Your task to perform on an android device: Open Google Maps Image 0: 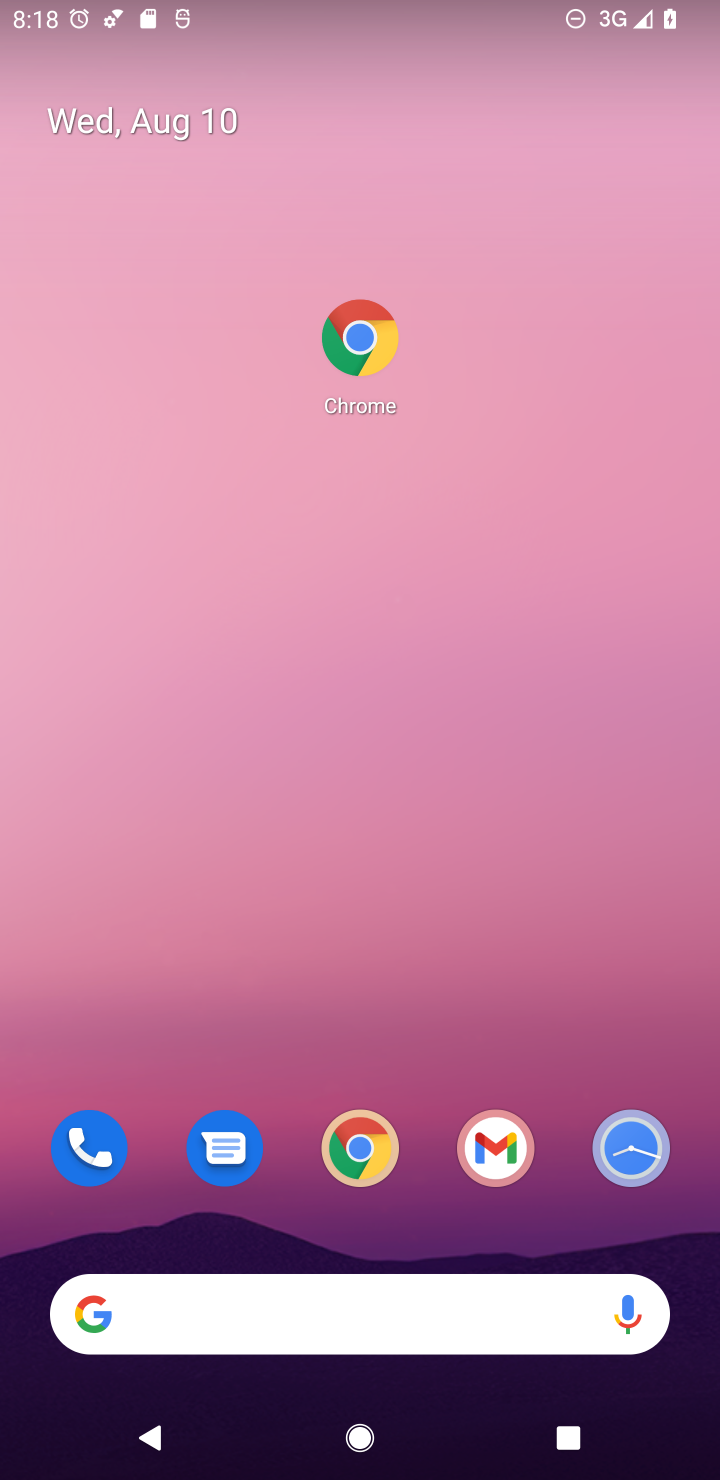
Step 0: drag from (336, 1213) to (273, 138)
Your task to perform on an android device: Open Google Maps Image 1: 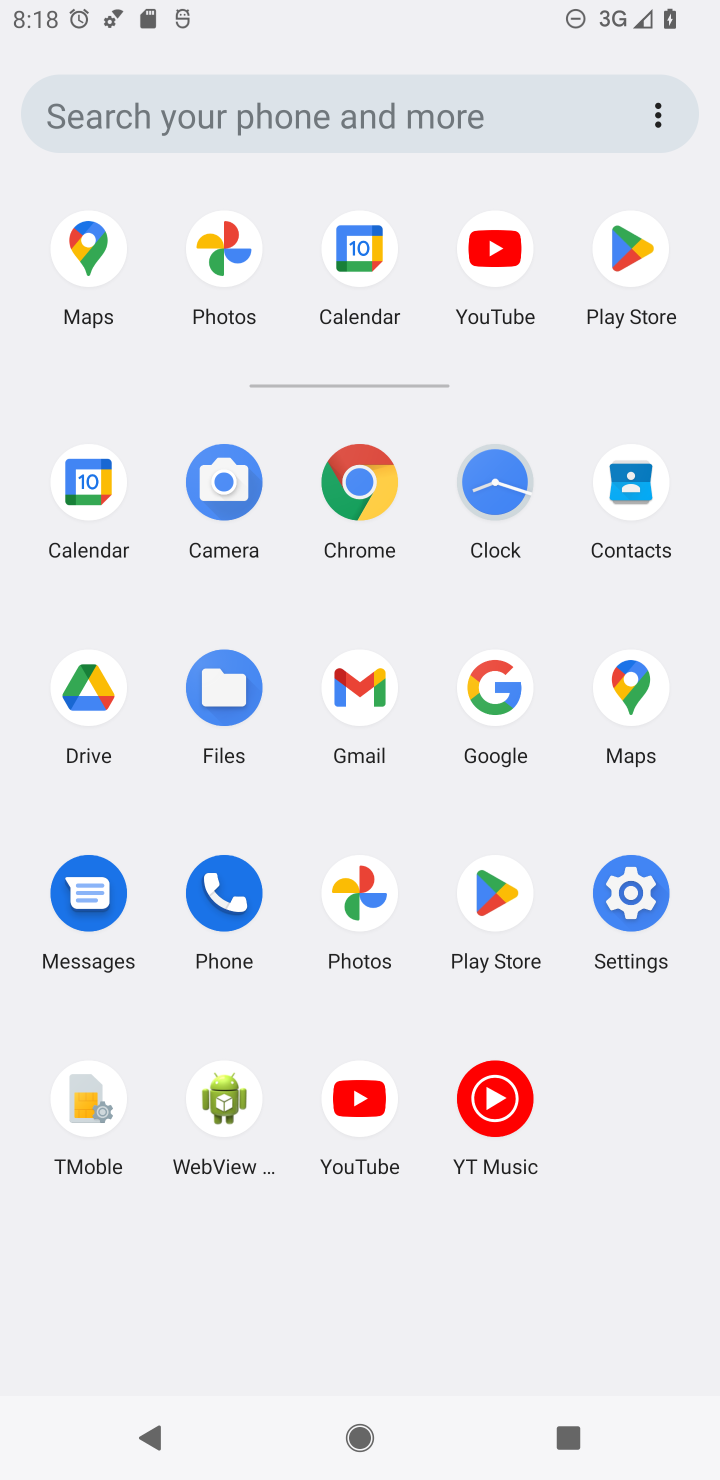
Step 1: click (77, 223)
Your task to perform on an android device: Open Google Maps Image 2: 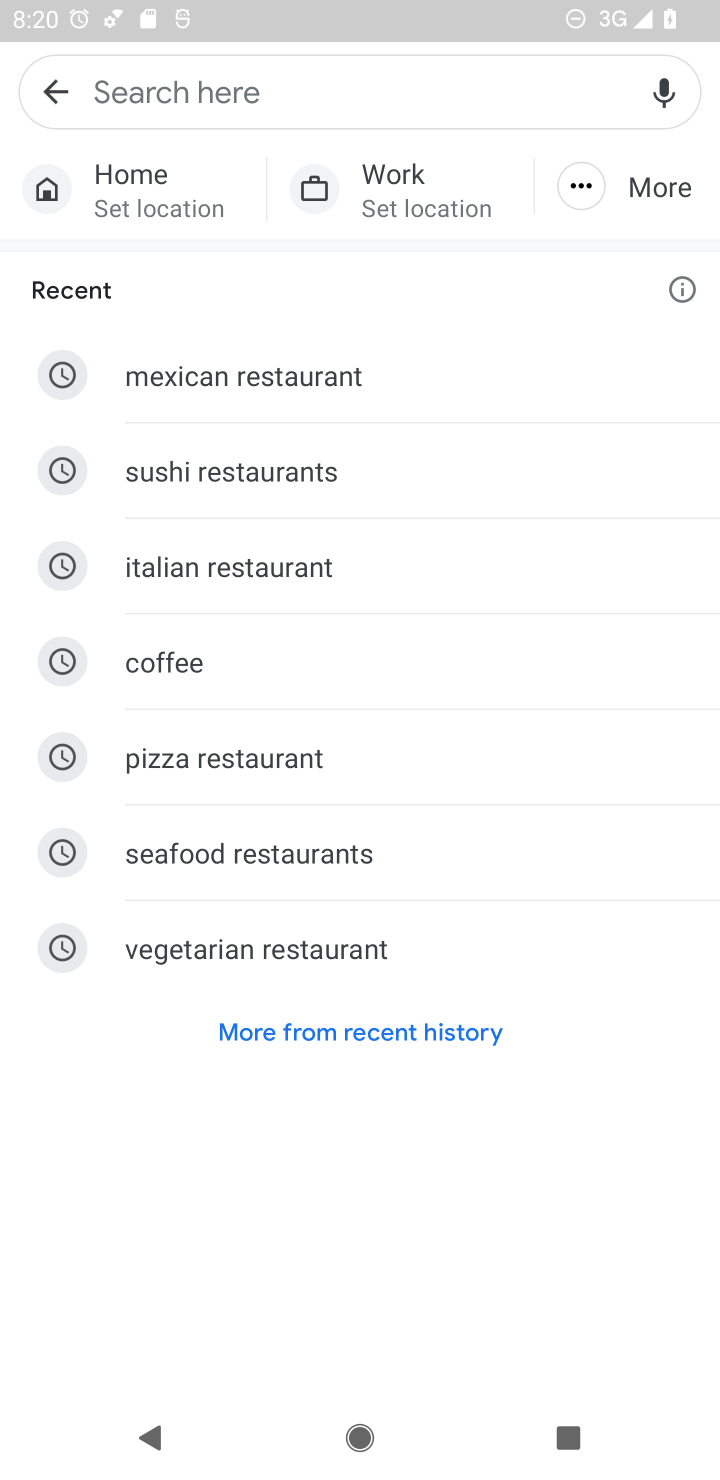
Step 2: task complete